Your task to perform on an android device: add a contact in the contacts app Image 0: 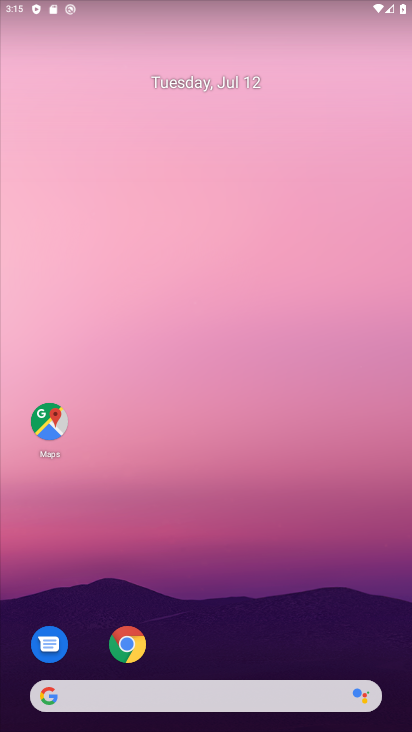
Step 0: click (201, 143)
Your task to perform on an android device: add a contact in the contacts app Image 1: 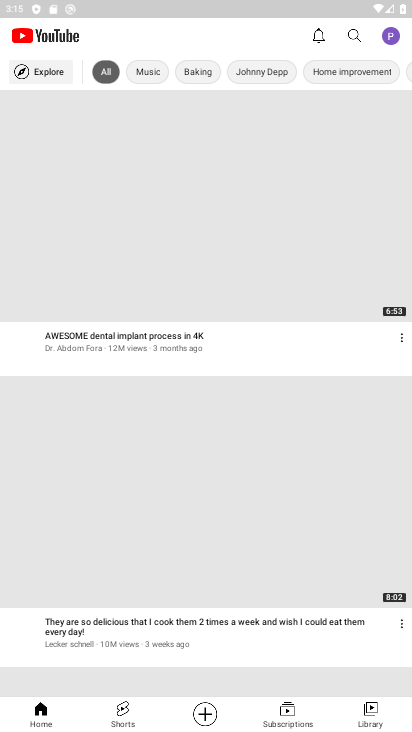
Step 1: press home button
Your task to perform on an android device: add a contact in the contacts app Image 2: 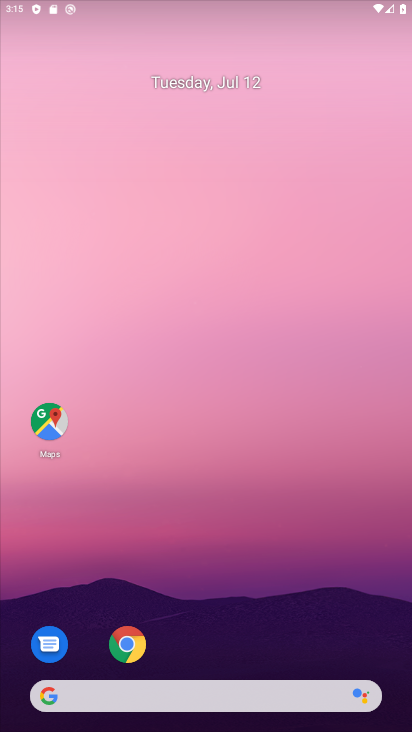
Step 2: drag from (301, 603) to (229, 80)
Your task to perform on an android device: add a contact in the contacts app Image 3: 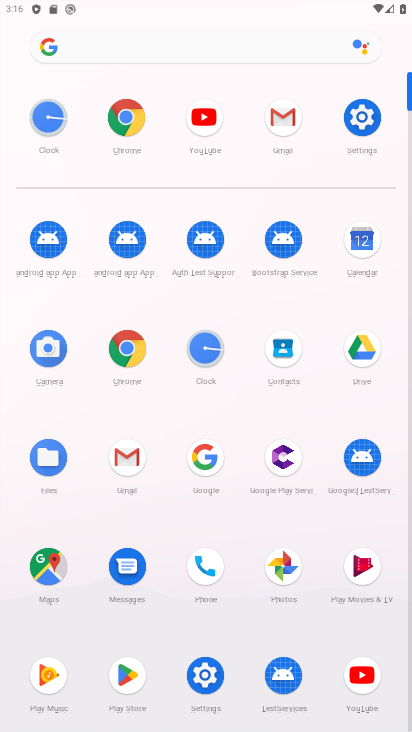
Step 3: click (281, 347)
Your task to perform on an android device: add a contact in the contacts app Image 4: 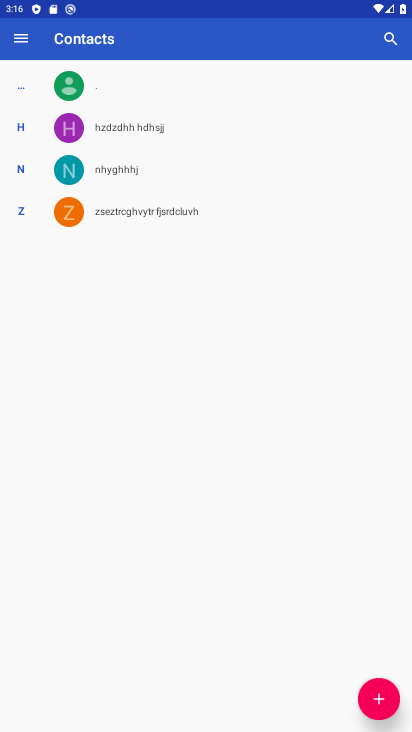
Step 4: click (388, 697)
Your task to perform on an android device: add a contact in the contacts app Image 5: 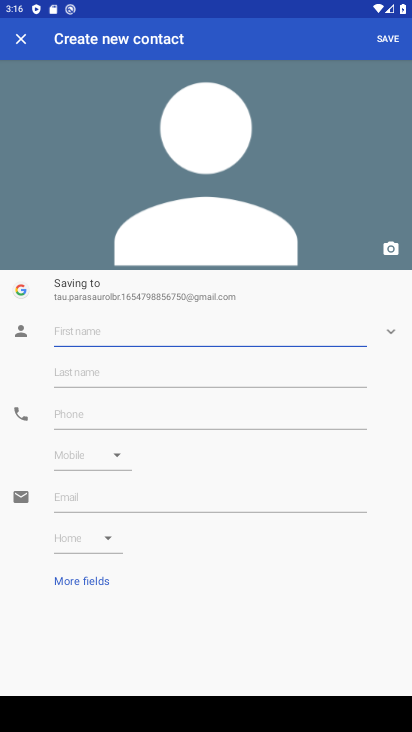
Step 5: click (200, 335)
Your task to perform on an android device: add a contact in the contacts app Image 6: 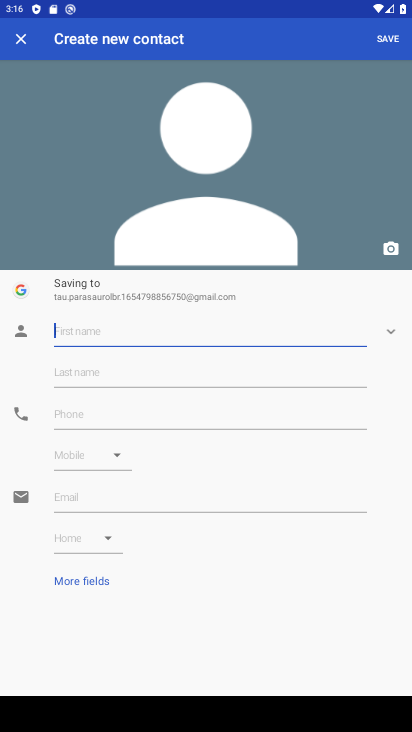
Step 6: type "jhingur"
Your task to perform on an android device: add a contact in the contacts app Image 7: 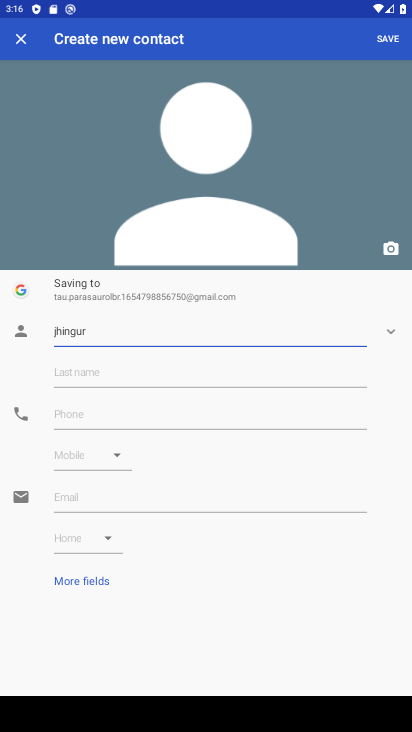
Step 7: click (383, 38)
Your task to perform on an android device: add a contact in the contacts app Image 8: 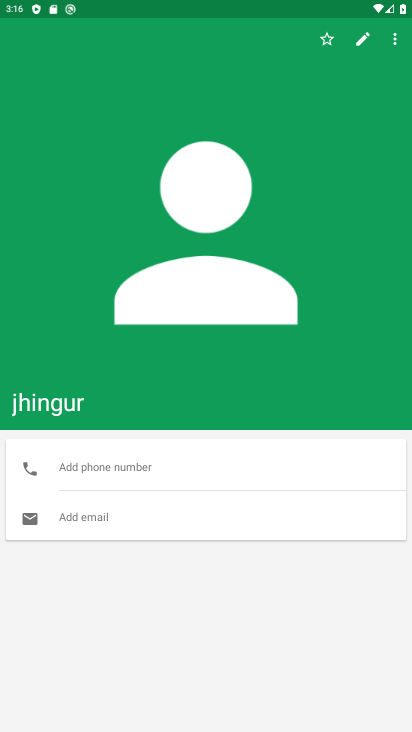
Step 8: task complete